Your task to perform on an android device: toggle sleep mode Image 0: 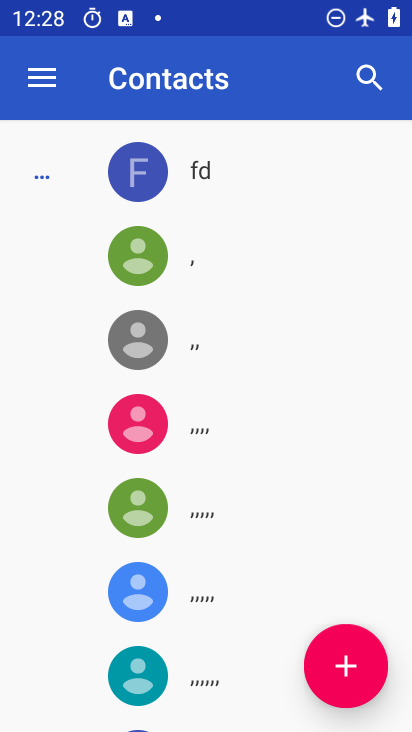
Step 0: press home button
Your task to perform on an android device: toggle sleep mode Image 1: 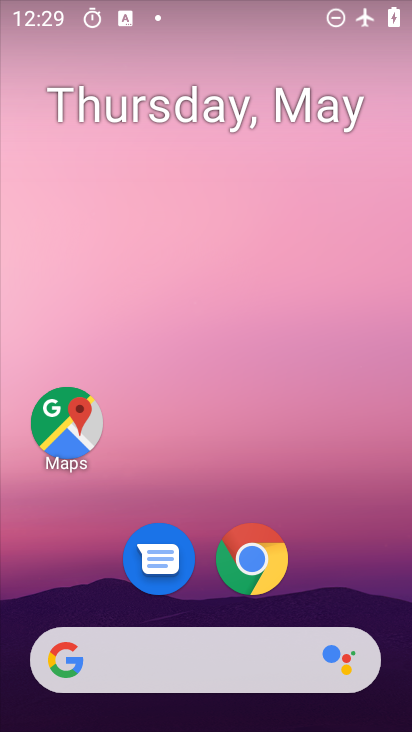
Step 1: drag from (216, 645) to (238, 226)
Your task to perform on an android device: toggle sleep mode Image 2: 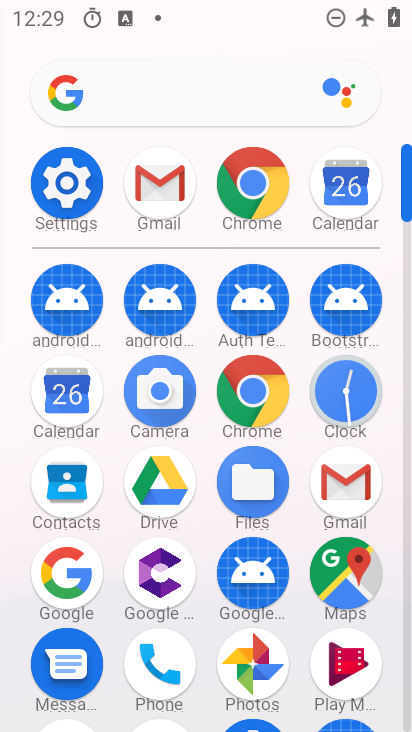
Step 2: click (57, 195)
Your task to perform on an android device: toggle sleep mode Image 3: 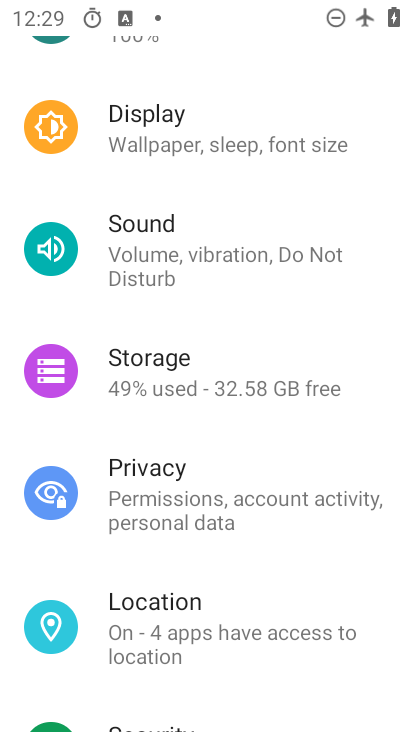
Step 3: drag from (215, 312) to (148, 558)
Your task to perform on an android device: toggle sleep mode Image 4: 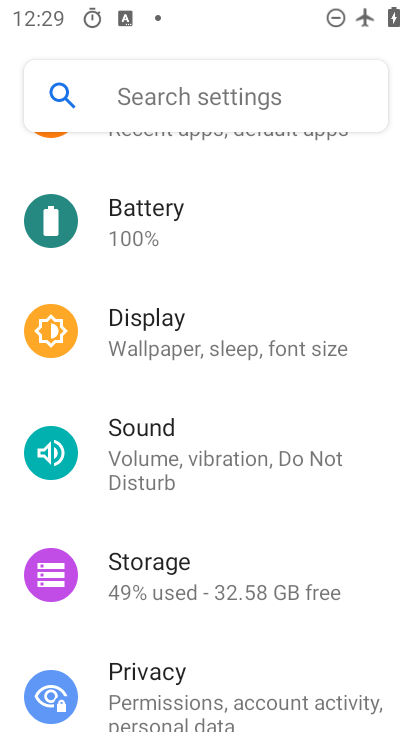
Step 4: click (228, 337)
Your task to perform on an android device: toggle sleep mode Image 5: 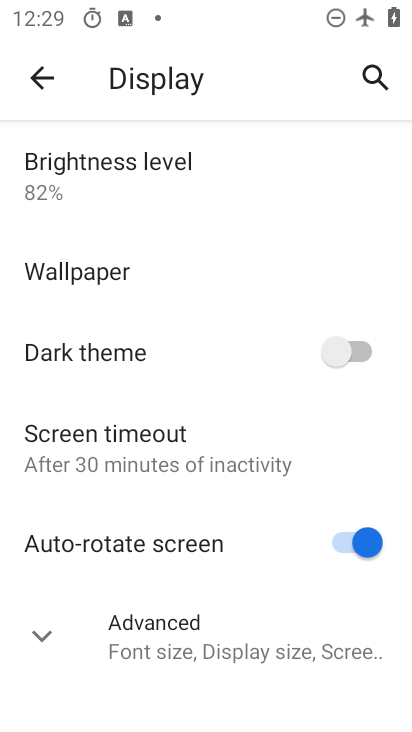
Step 5: drag from (157, 561) to (198, 355)
Your task to perform on an android device: toggle sleep mode Image 6: 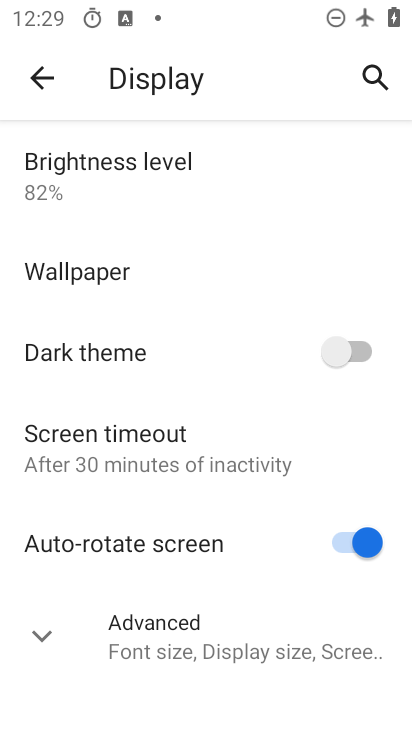
Step 6: click (155, 632)
Your task to perform on an android device: toggle sleep mode Image 7: 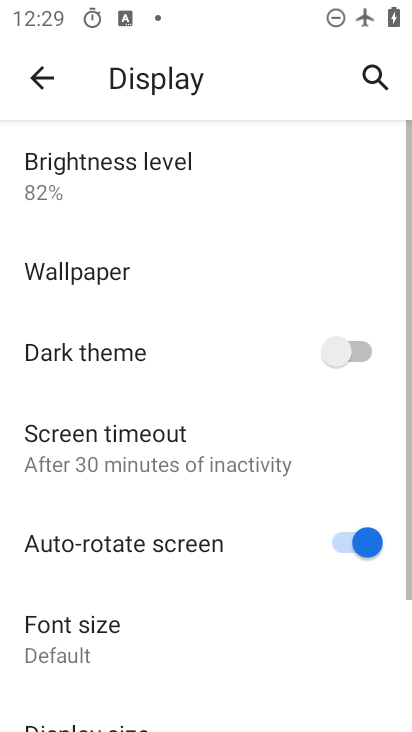
Step 7: task complete